Your task to perform on an android device: Go to network settings Image 0: 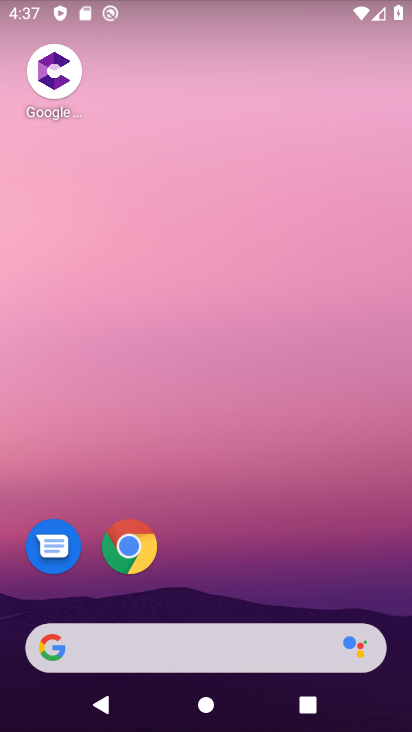
Step 0: drag from (231, 532) to (309, 173)
Your task to perform on an android device: Go to network settings Image 1: 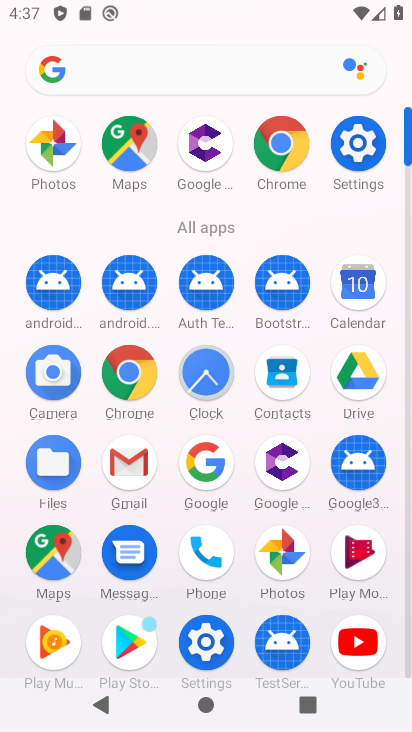
Step 1: click (206, 648)
Your task to perform on an android device: Go to network settings Image 2: 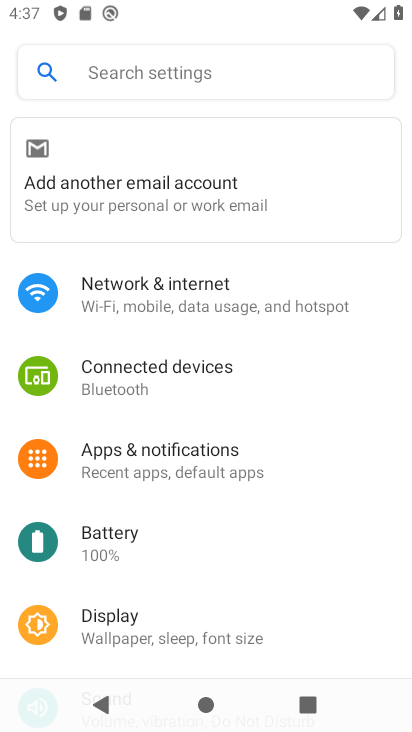
Step 2: drag from (203, 163) to (207, 292)
Your task to perform on an android device: Go to network settings Image 3: 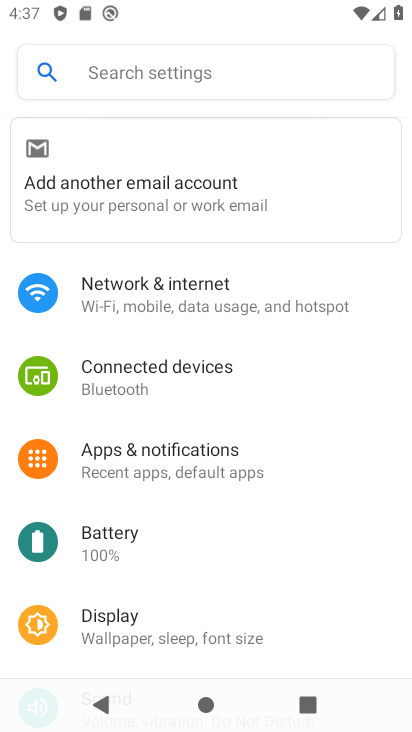
Step 3: click (207, 296)
Your task to perform on an android device: Go to network settings Image 4: 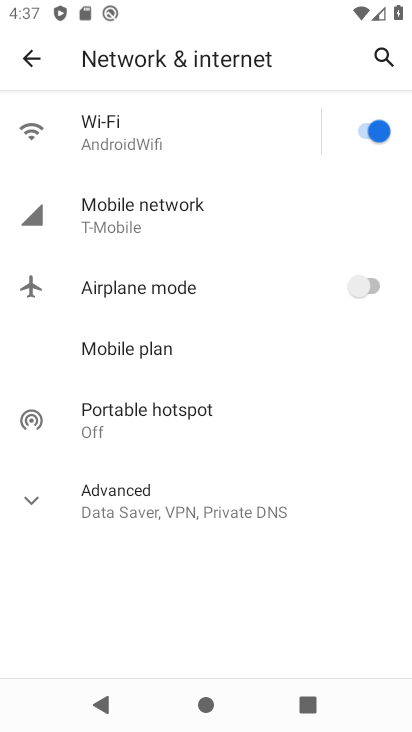
Step 4: click (166, 218)
Your task to perform on an android device: Go to network settings Image 5: 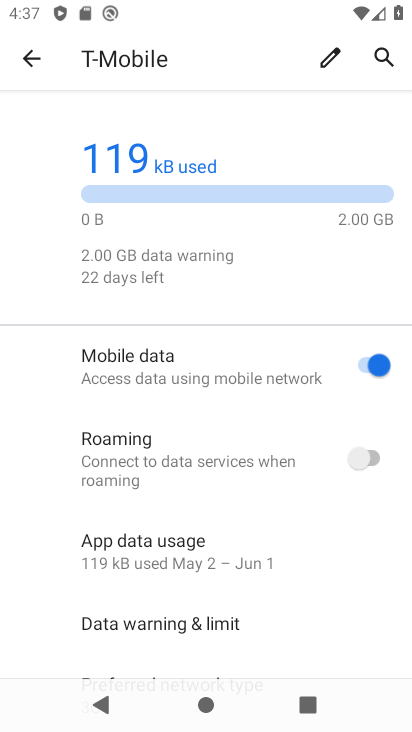
Step 5: task complete